Your task to perform on an android device: turn on airplane mode Image 0: 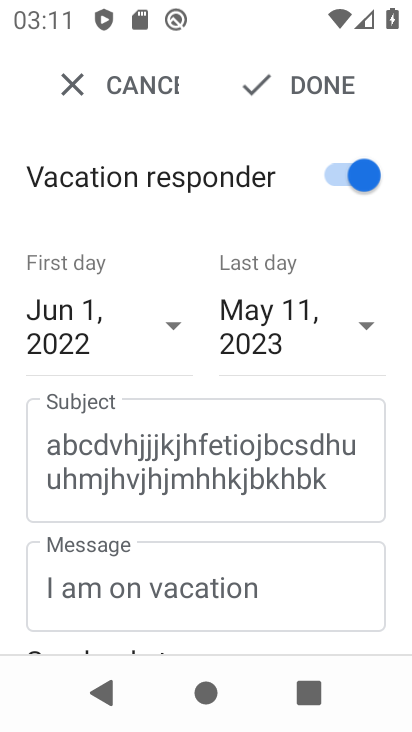
Step 0: press home button
Your task to perform on an android device: turn on airplane mode Image 1: 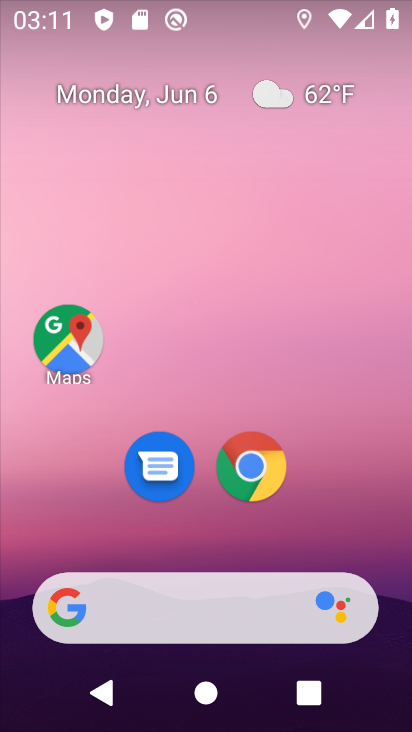
Step 1: drag from (270, 10) to (256, 537)
Your task to perform on an android device: turn on airplane mode Image 2: 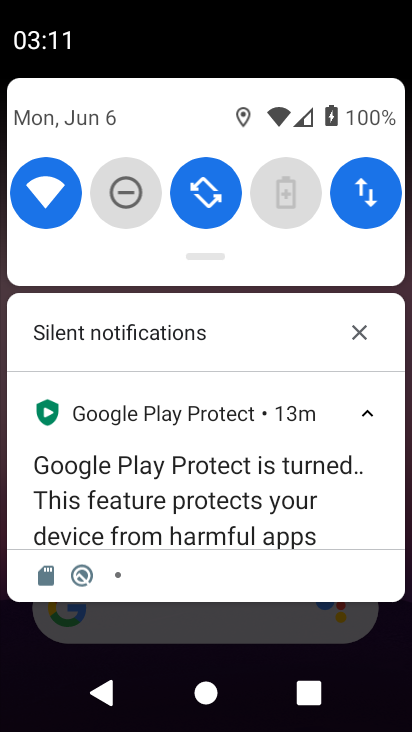
Step 2: drag from (320, 244) to (305, 443)
Your task to perform on an android device: turn on airplane mode Image 3: 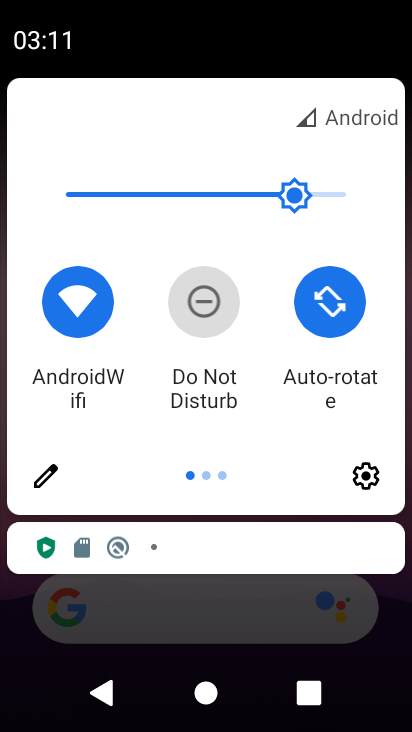
Step 3: drag from (360, 350) to (19, 341)
Your task to perform on an android device: turn on airplane mode Image 4: 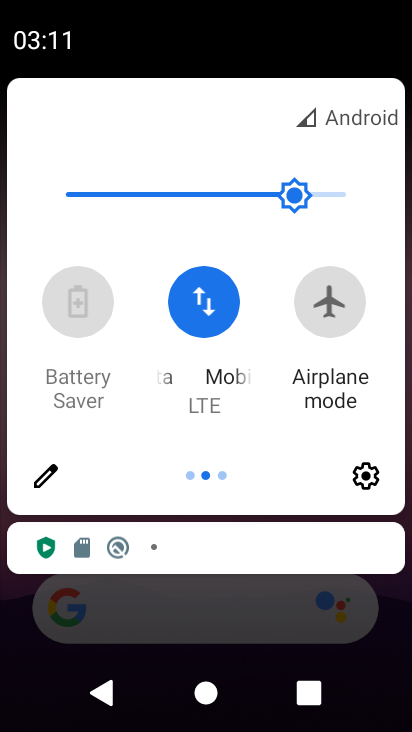
Step 4: click (329, 305)
Your task to perform on an android device: turn on airplane mode Image 5: 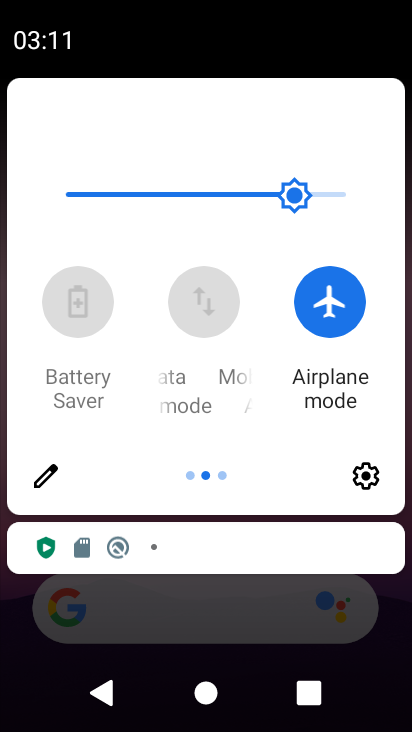
Step 5: task complete